Your task to perform on an android device: allow cookies in the chrome app Image 0: 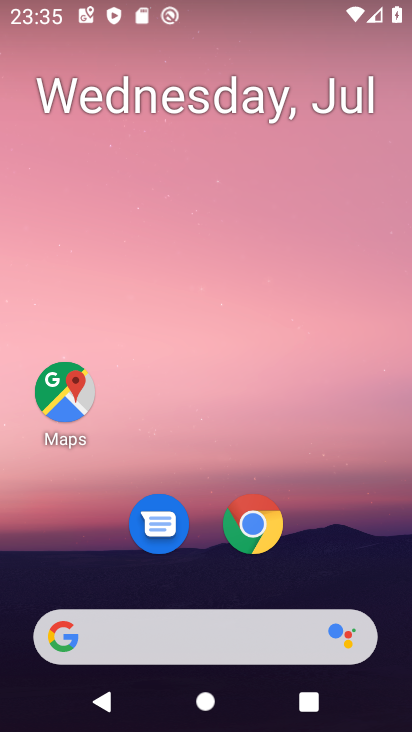
Step 0: press home button
Your task to perform on an android device: allow cookies in the chrome app Image 1: 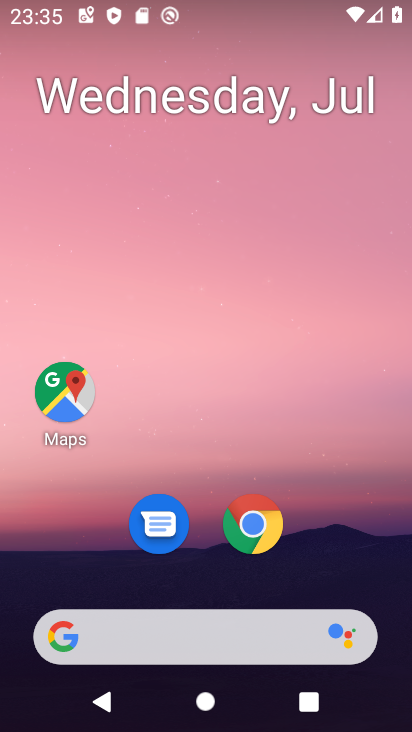
Step 1: click (264, 524)
Your task to perform on an android device: allow cookies in the chrome app Image 2: 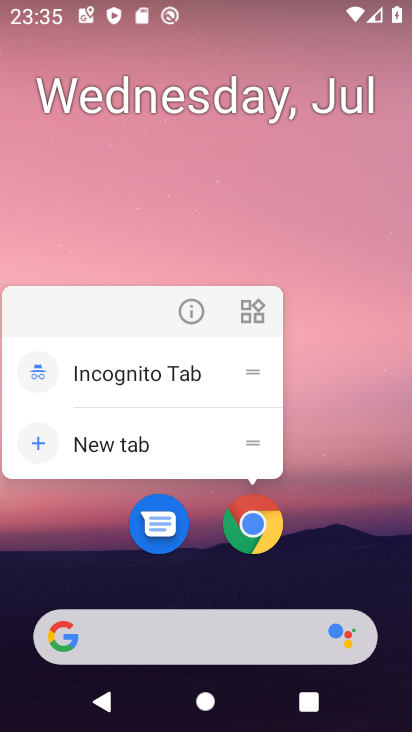
Step 2: click (262, 527)
Your task to perform on an android device: allow cookies in the chrome app Image 3: 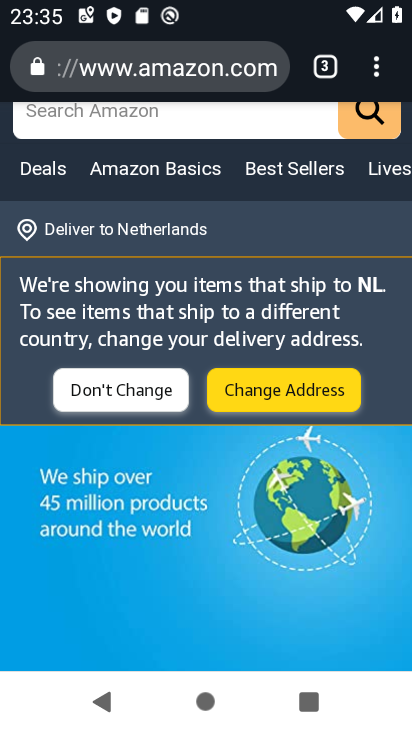
Step 3: drag from (376, 70) to (217, 524)
Your task to perform on an android device: allow cookies in the chrome app Image 4: 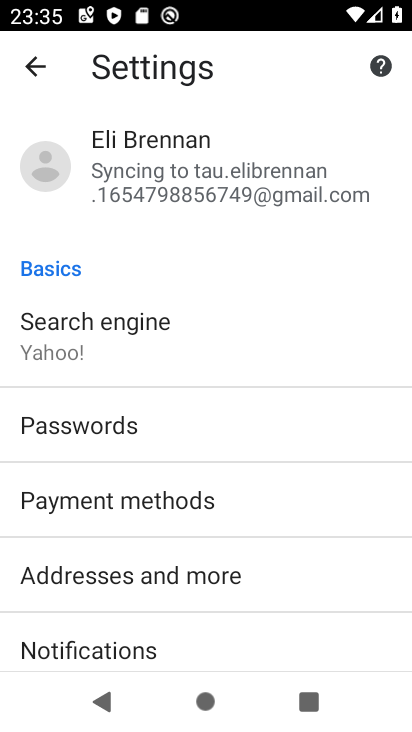
Step 4: drag from (243, 648) to (345, 169)
Your task to perform on an android device: allow cookies in the chrome app Image 5: 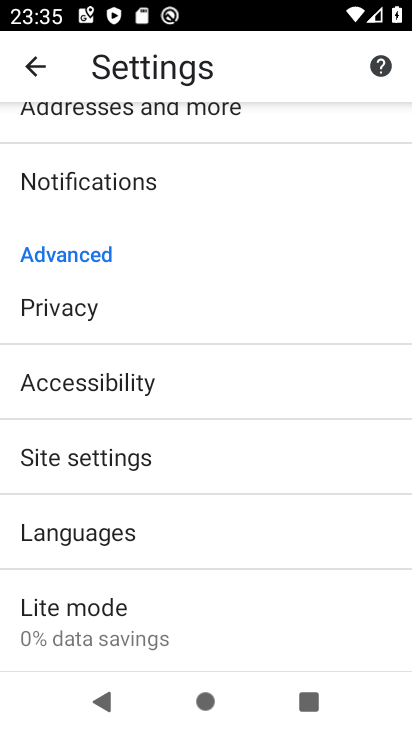
Step 5: click (98, 459)
Your task to perform on an android device: allow cookies in the chrome app Image 6: 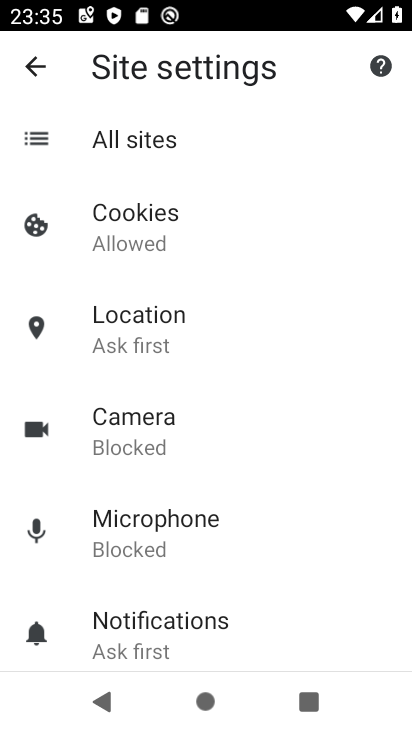
Step 6: click (134, 236)
Your task to perform on an android device: allow cookies in the chrome app Image 7: 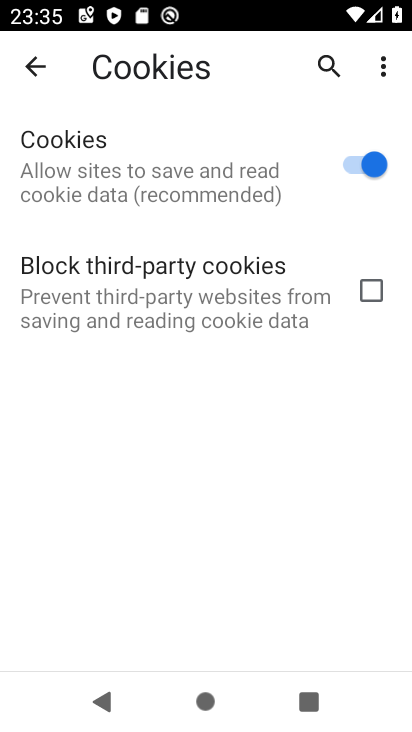
Step 7: task complete